Your task to perform on an android device: Open sound settings Image 0: 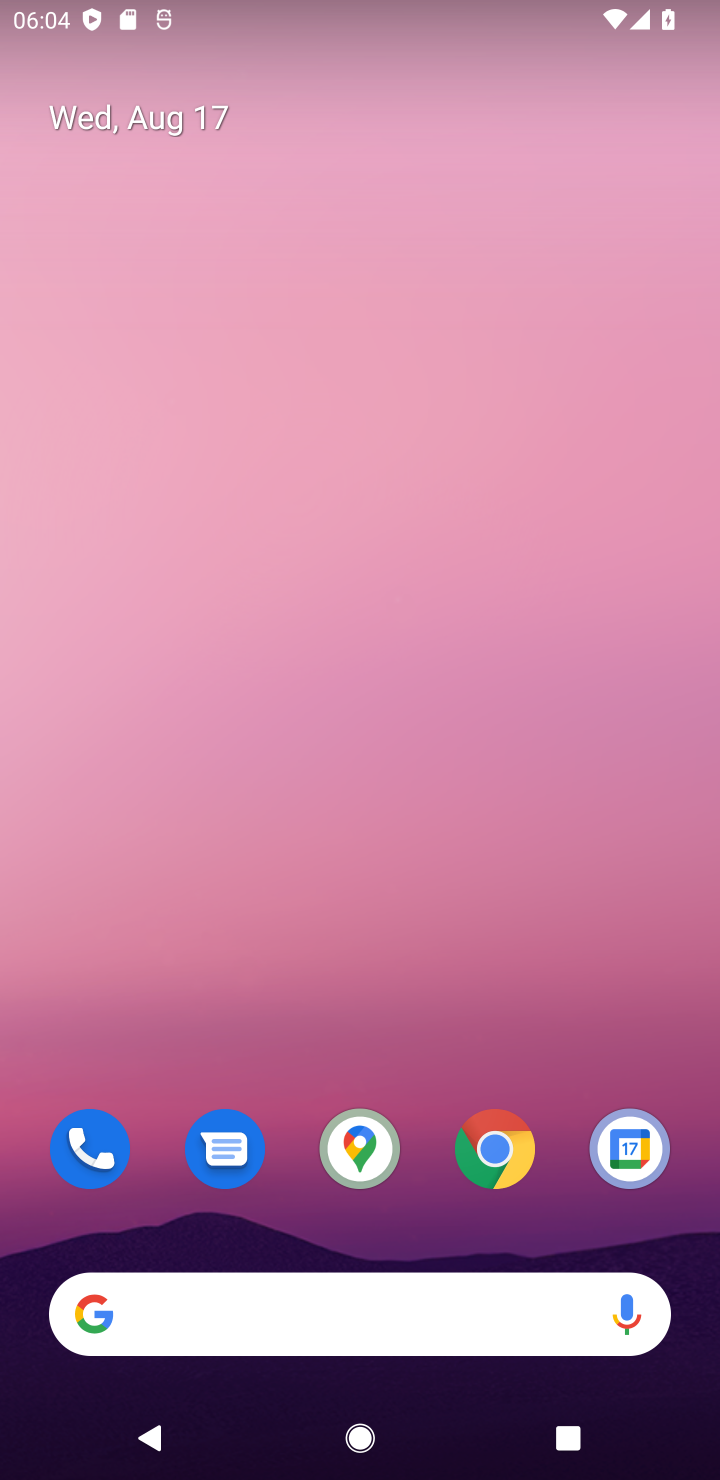
Step 0: drag from (407, 1036) to (319, 0)
Your task to perform on an android device: Open sound settings Image 1: 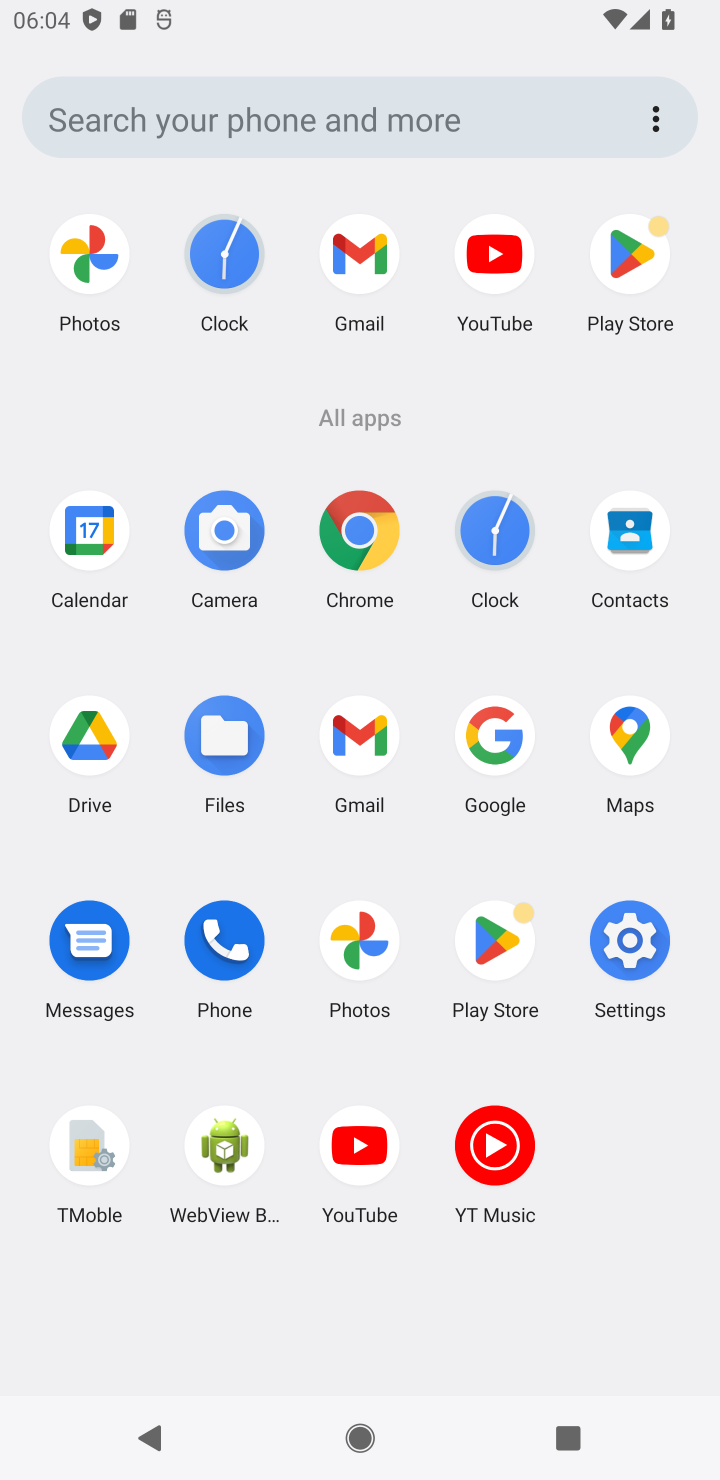
Step 1: click (634, 936)
Your task to perform on an android device: Open sound settings Image 2: 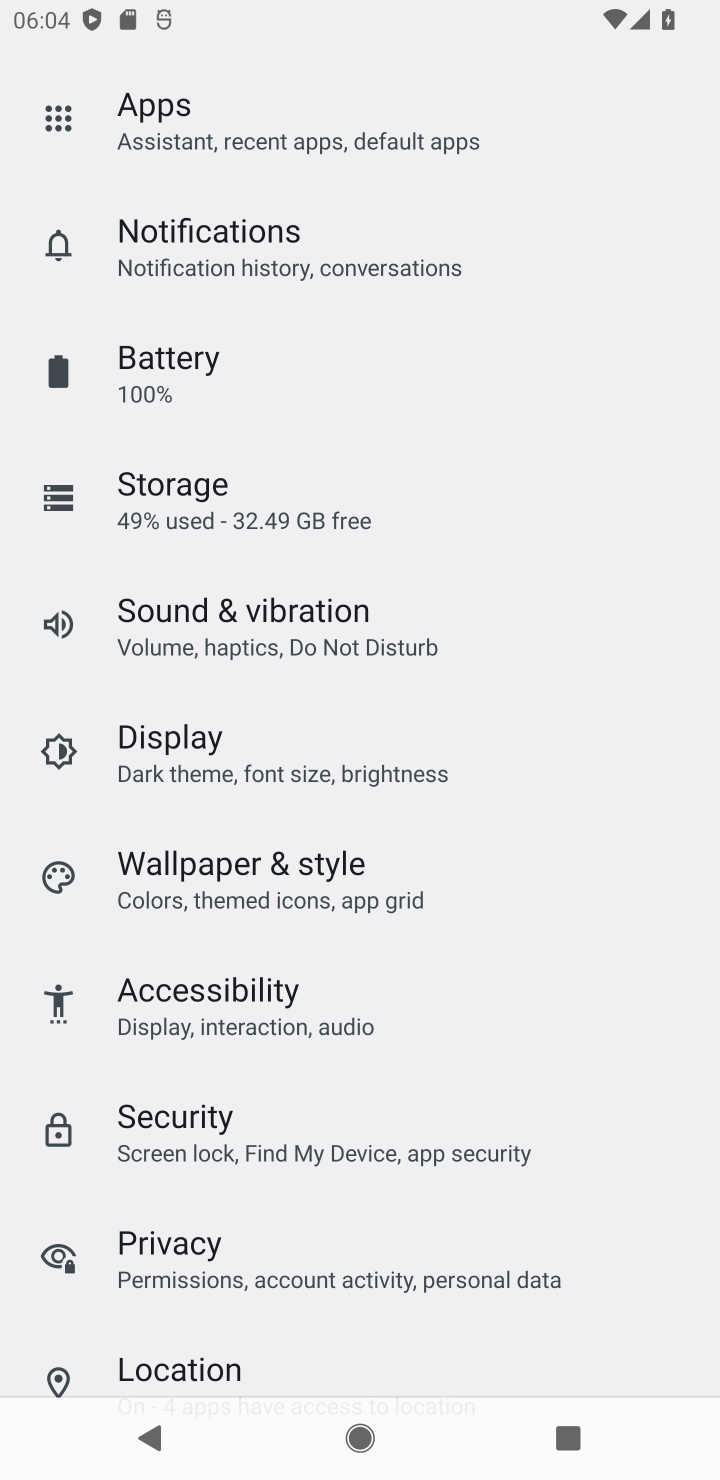
Step 2: click (195, 590)
Your task to perform on an android device: Open sound settings Image 3: 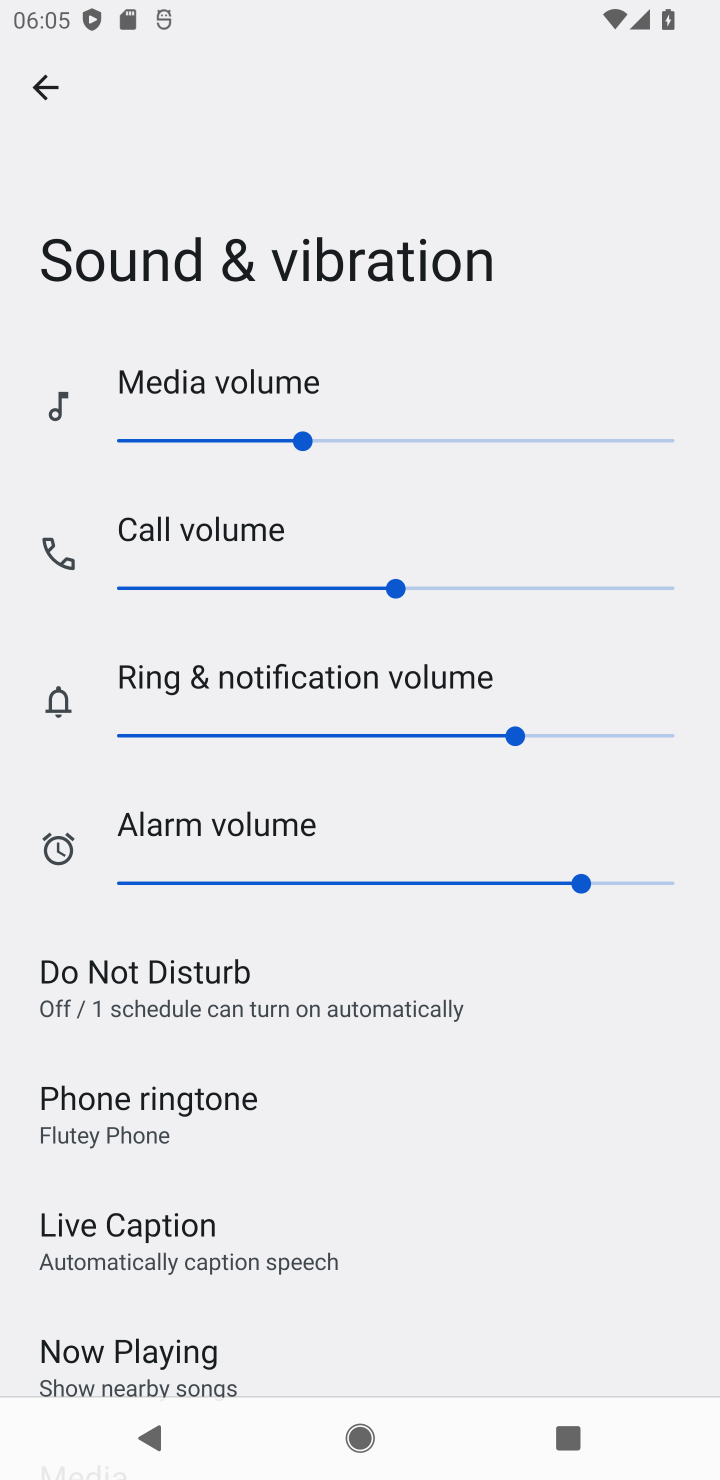
Step 3: task complete